Your task to perform on an android device: Open network settings Image 0: 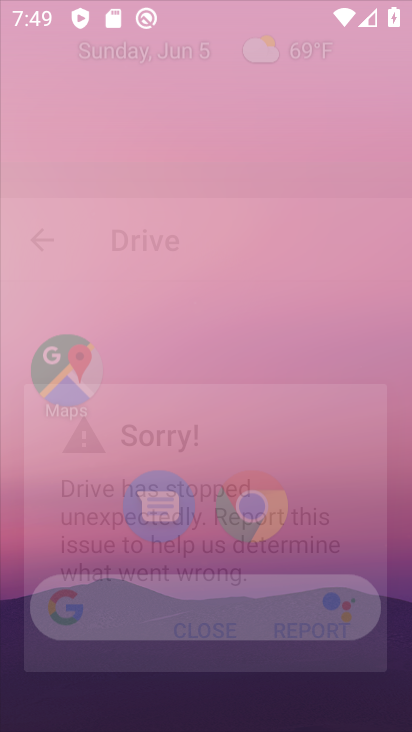
Step 0: click (103, 653)
Your task to perform on an android device: Open network settings Image 1: 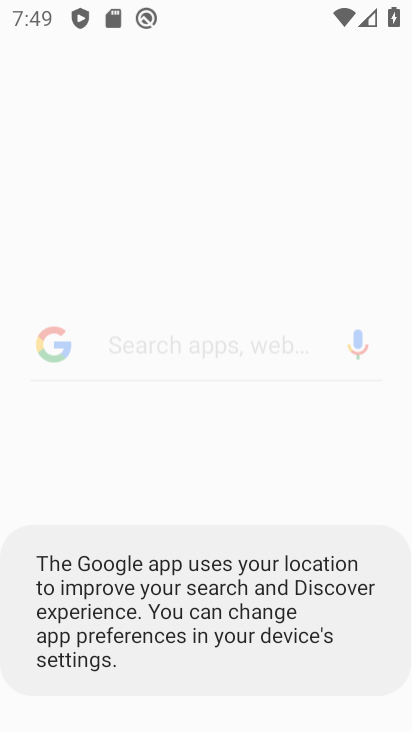
Step 1: drag from (304, 585) to (258, 140)
Your task to perform on an android device: Open network settings Image 2: 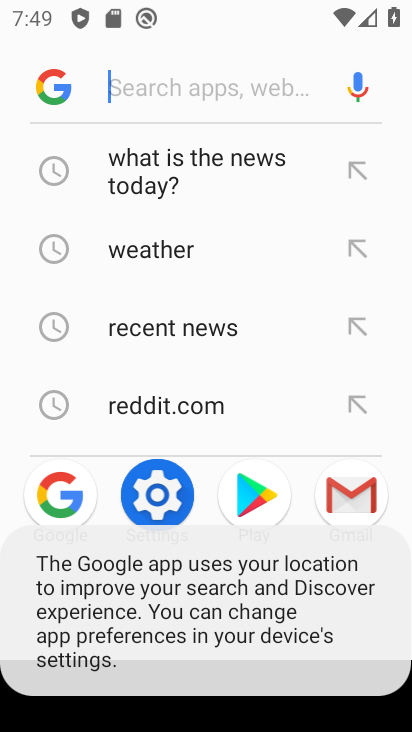
Step 2: press home button
Your task to perform on an android device: Open network settings Image 3: 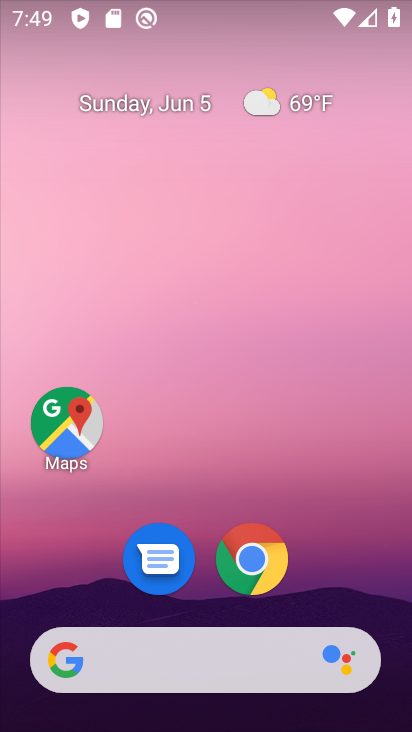
Step 3: drag from (338, 520) to (260, 53)
Your task to perform on an android device: Open network settings Image 4: 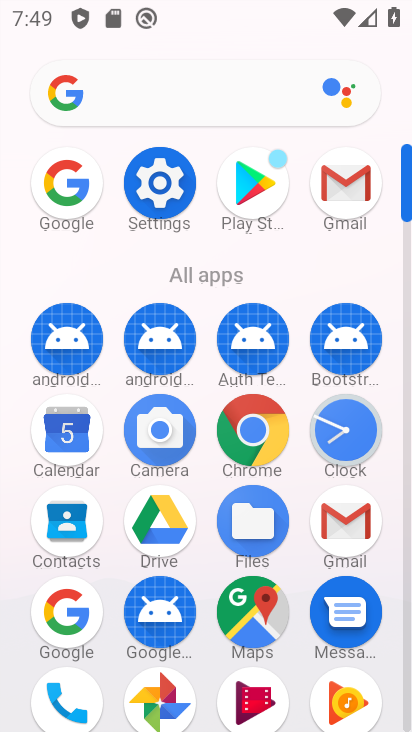
Step 4: click (144, 176)
Your task to perform on an android device: Open network settings Image 5: 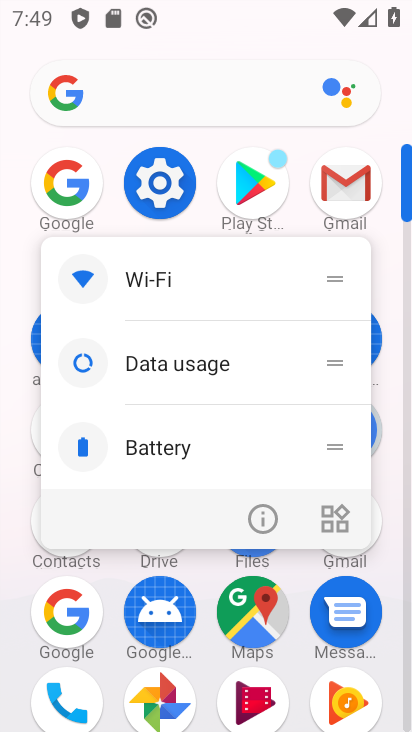
Step 5: click (156, 173)
Your task to perform on an android device: Open network settings Image 6: 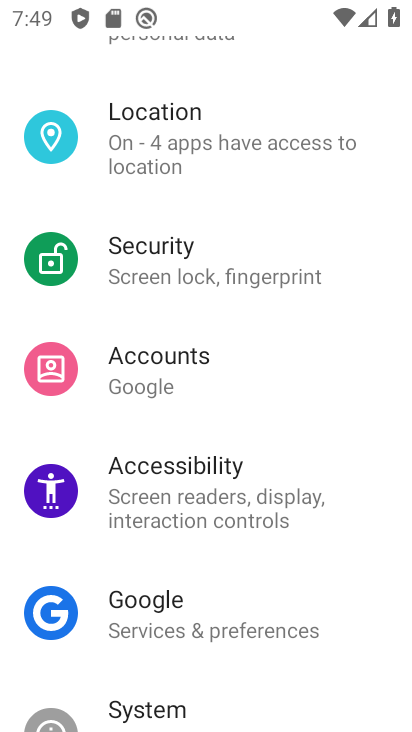
Step 6: drag from (194, 116) to (339, 598)
Your task to perform on an android device: Open network settings Image 7: 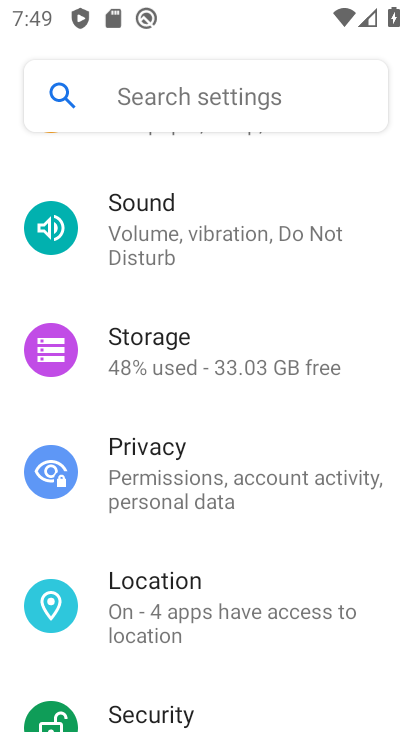
Step 7: drag from (270, 255) to (297, 610)
Your task to perform on an android device: Open network settings Image 8: 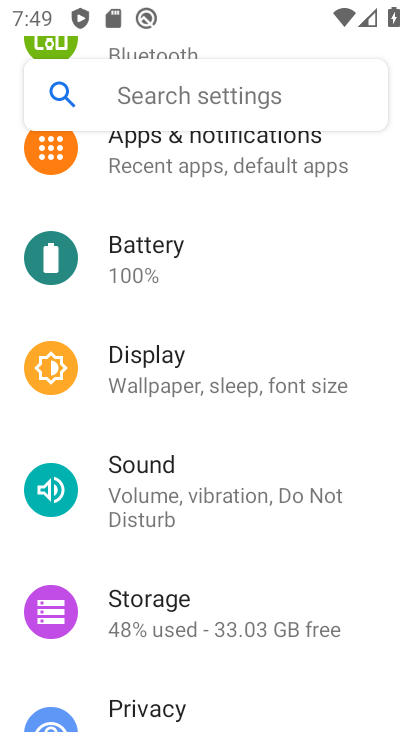
Step 8: drag from (255, 153) to (282, 728)
Your task to perform on an android device: Open network settings Image 9: 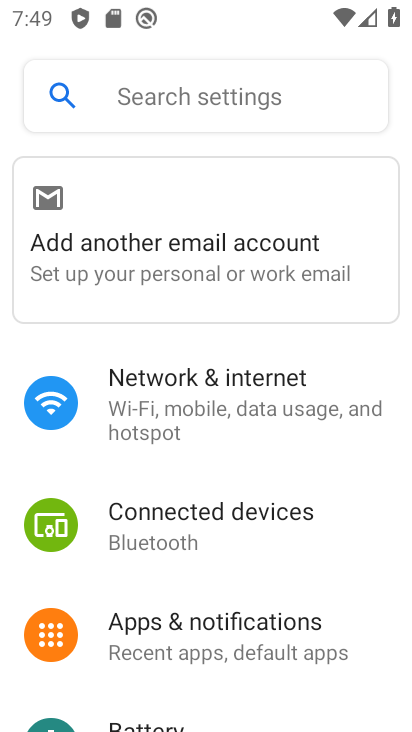
Step 9: click (231, 421)
Your task to perform on an android device: Open network settings Image 10: 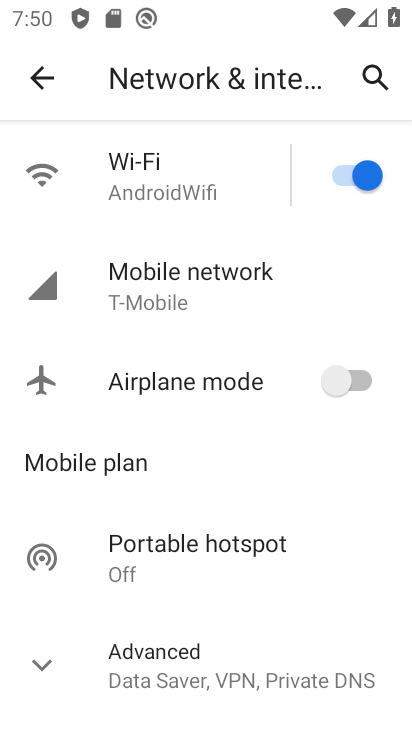
Step 10: task complete